Your task to perform on an android device: create a new album in the google photos Image 0: 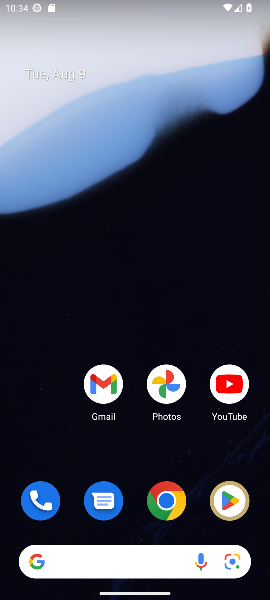
Step 0: click (165, 378)
Your task to perform on an android device: create a new album in the google photos Image 1: 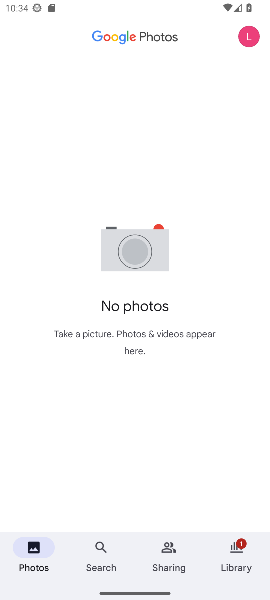
Step 1: task complete